Your task to perform on an android device: What is the news today? Image 0: 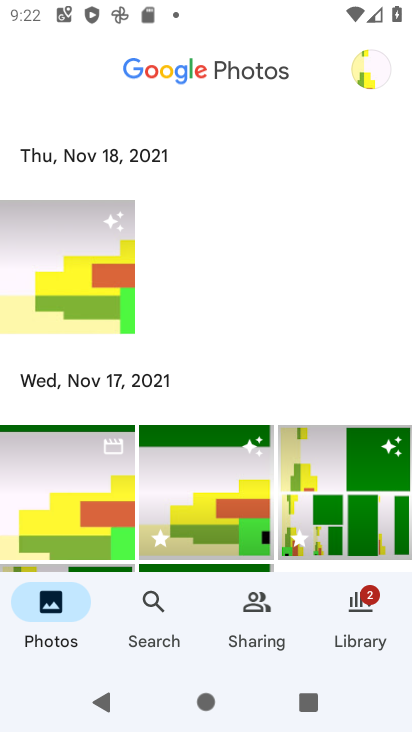
Step 0: press home button
Your task to perform on an android device: What is the news today? Image 1: 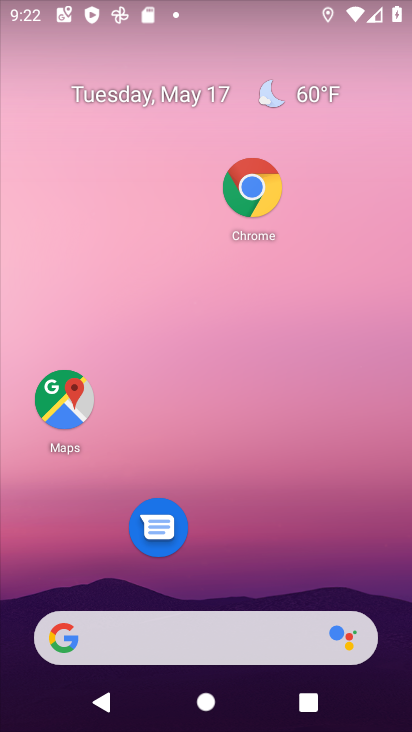
Step 1: click (169, 618)
Your task to perform on an android device: What is the news today? Image 2: 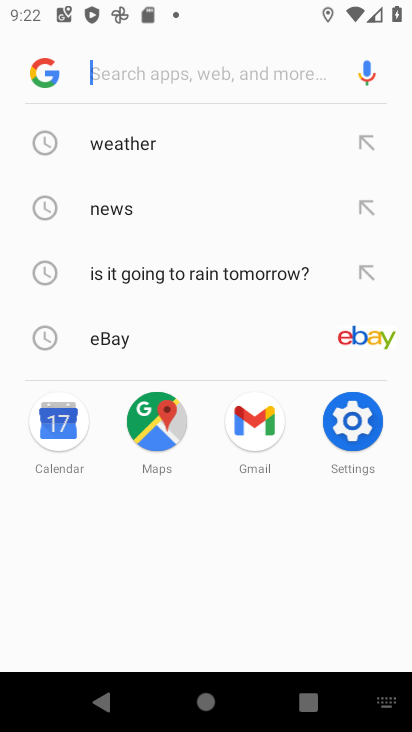
Step 2: click (186, 217)
Your task to perform on an android device: What is the news today? Image 3: 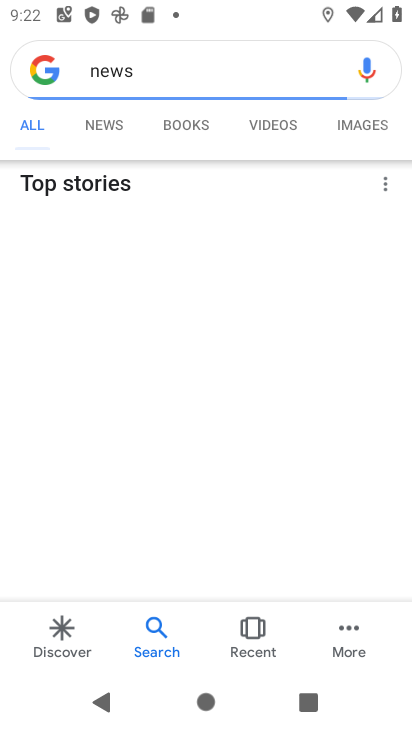
Step 3: task complete